Your task to perform on an android device: Open calendar and show me the second week of next month Image 0: 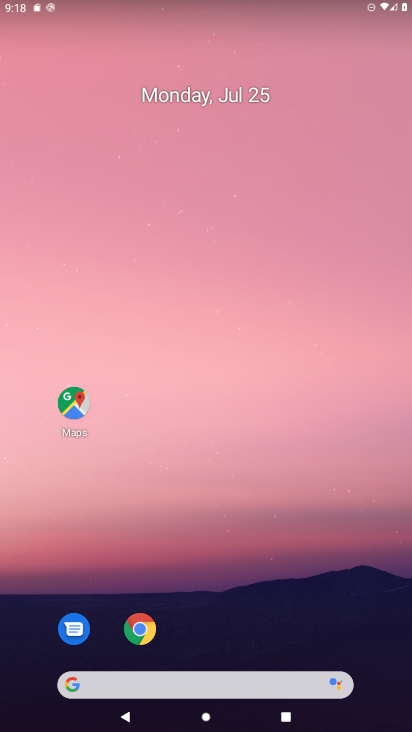
Step 0: drag from (306, 674) to (255, 6)
Your task to perform on an android device: Open calendar and show me the second week of next month Image 1: 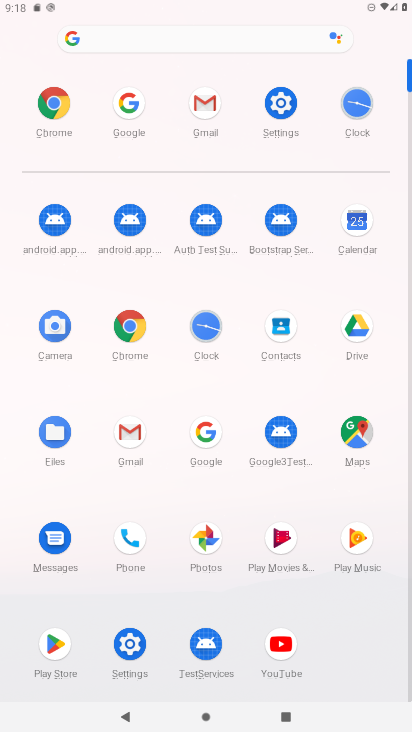
Step 1: click (361, 228)
Your task to perform on an android device: Open calendar and show me the second week of next month Image 2: 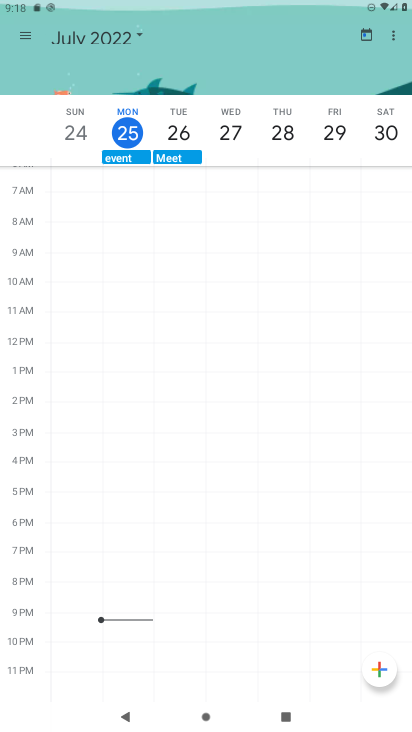
Step 2: click (144, 36)
Your task to perform on an android device: Open calendar and show me the second week of next month Image 3: 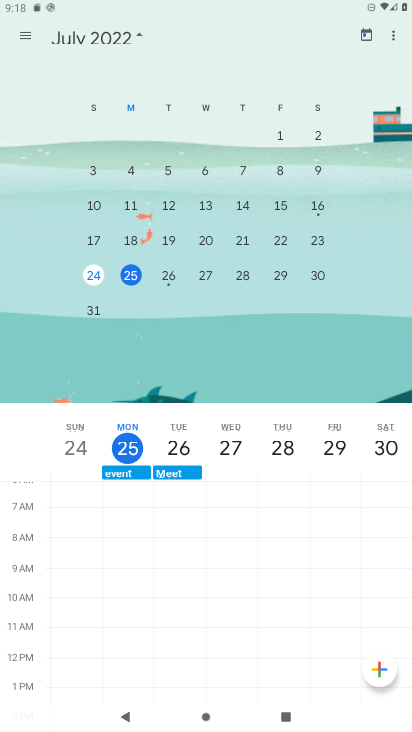
Step 3: drag from (289, 286) to (35, 265)
Your task to perform on an android device: Open calendar and show me the second week of next month Image 4: 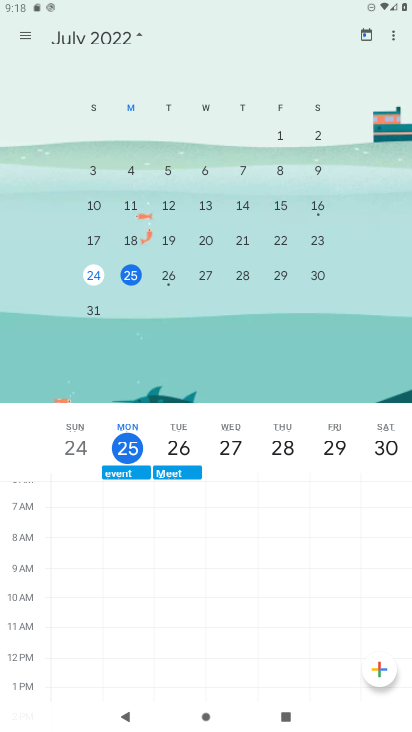
Step 4: drag from (252, 224) to (18, 217)
Your task to perform on an android device: Open calendar and show me the second week of next month Image 5: 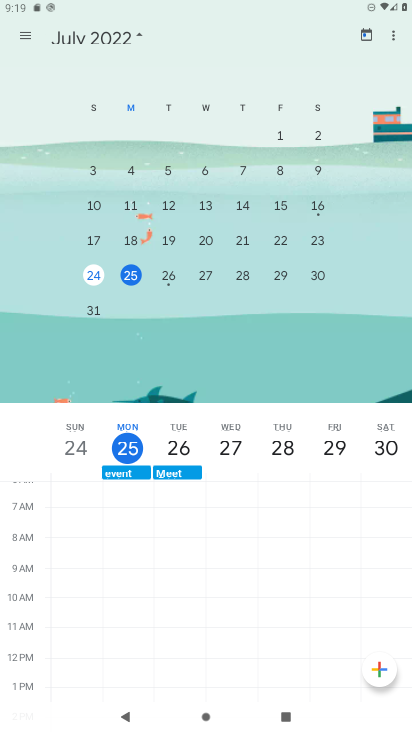
Step 5: drag from (362, 209) to (2, 179)
Your task to perform on an android device: Open calendar and show me the second week of next month Image 6: 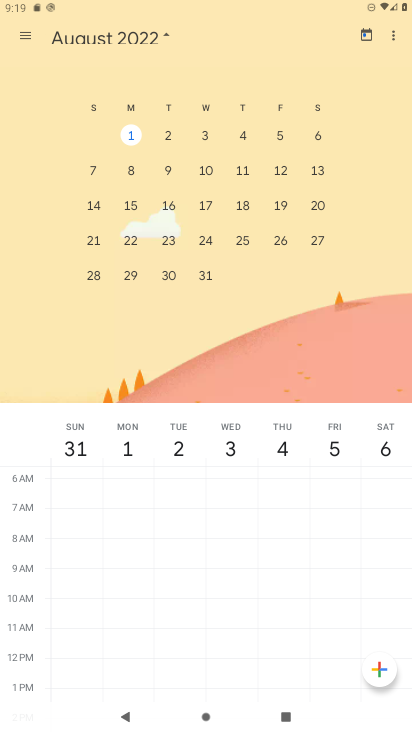
Step 6: click (18, 33)
Your task to perform on an android device: Open calendar and show me the second week of next month Image 7: 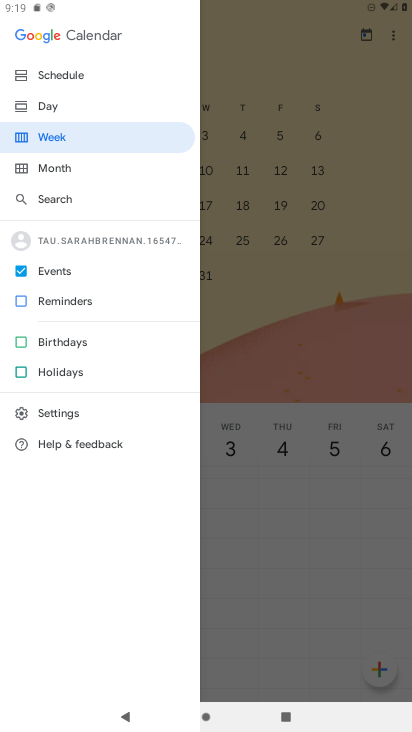
Step 7: click (48, 138)
Your task to perform on an android device: Open calendar and show me the second week of next month Image 8: 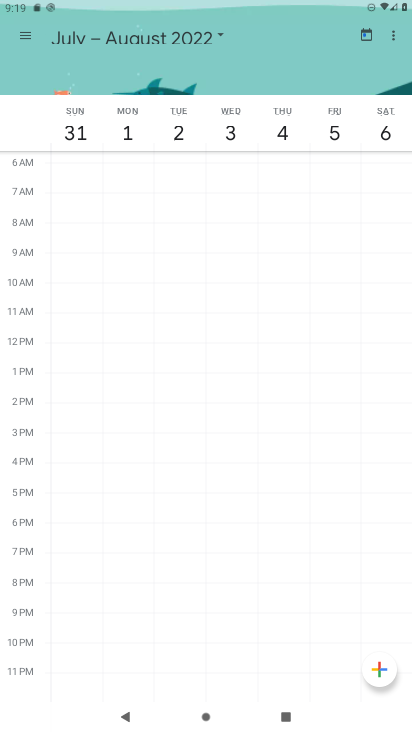
Step 8: task complete